Your task to perform on an android device: stop showing notifications on the lock screen Image 0: 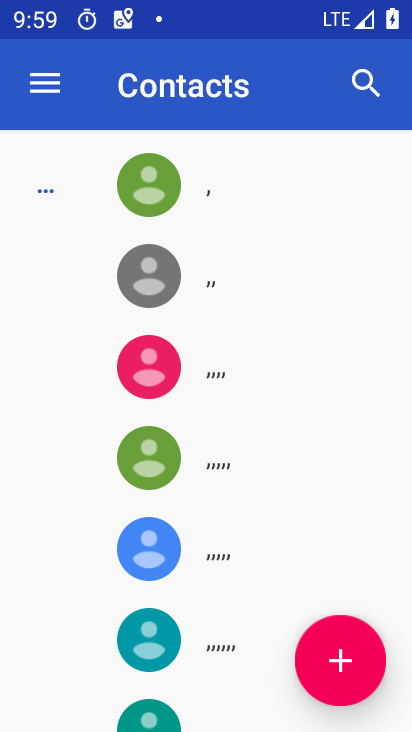
Step 0: press back button
Your task to perform on an android device: stop showing notifications on the lock screen Image 1: 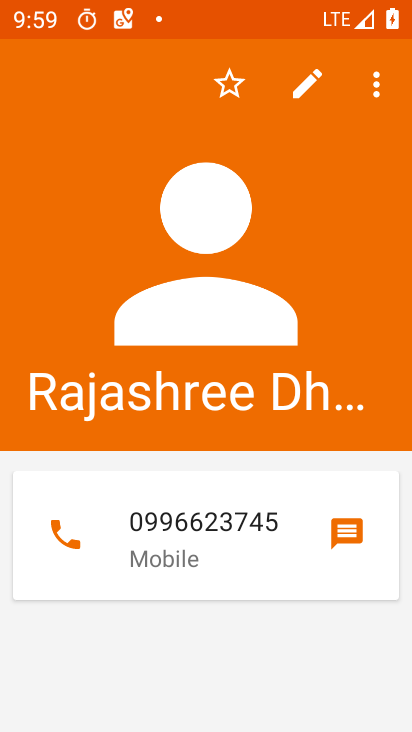
Step 1: press back button
Your task to perform on an android device: stop showing notifications on the lock screen Image 2: 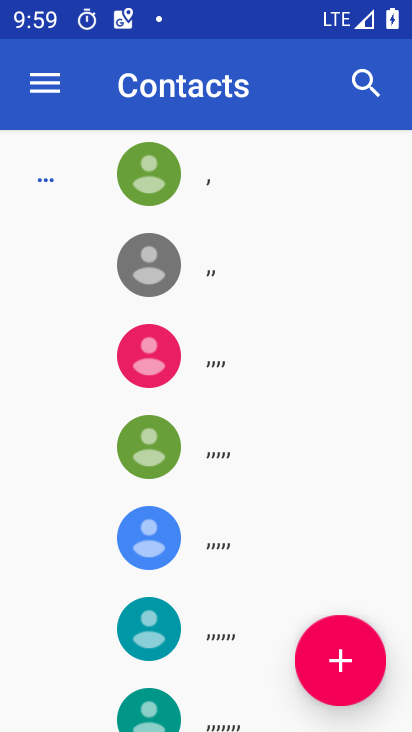
Step 2: press back button
Your task to perform on an android device: stop showing notifications on the lock screen Image 3: 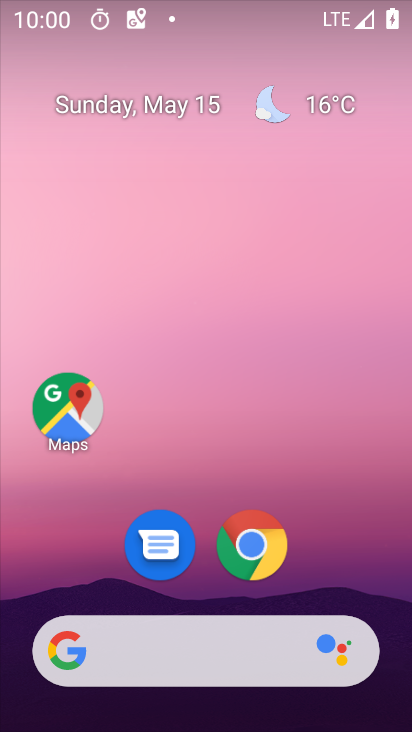
Step 3: drag from (344, 585) to (266, 36)
Your task to perform on an android device: stop showing notifications on the lock screen Image 4: 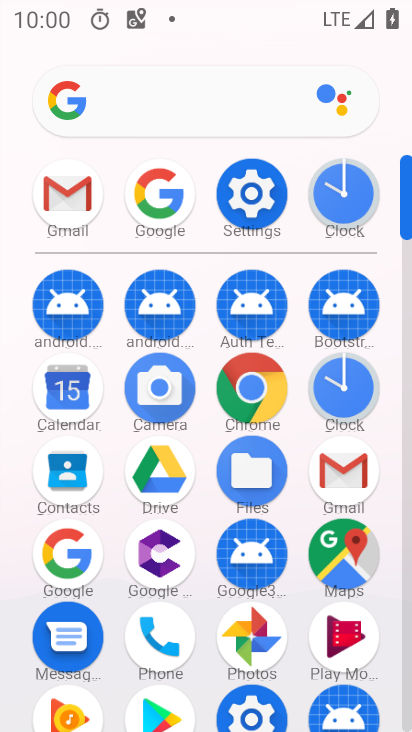
Step 4: click (250, 194)
Your task to perform on an android device: stop showing notifications on the lock screen Image 5: 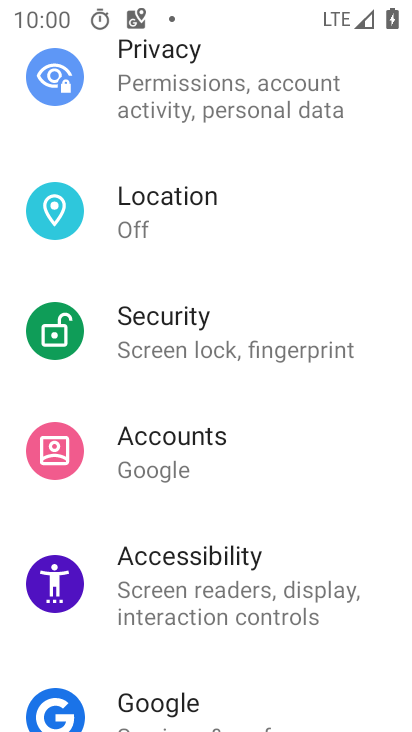
Step 5: drag from (275, 245) to (274, 335)
Your task to perform on an android device: stop showing notifications on the lock screen Image 6: 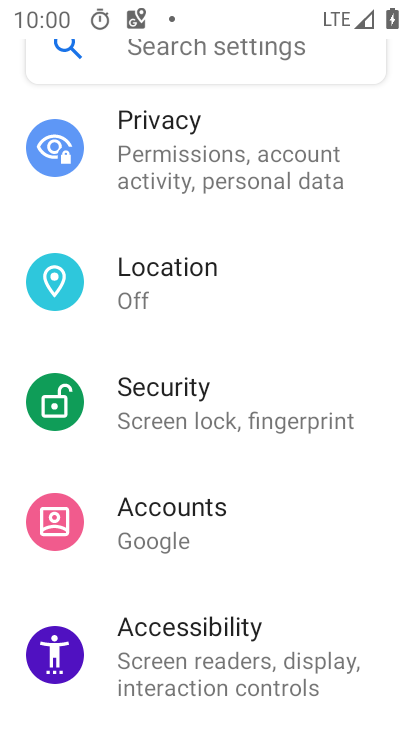
Step 6: drag from (258, 238) to (260, 366)
Your task to perform on an android device: stop showing notifications on the lock screen Image 7: 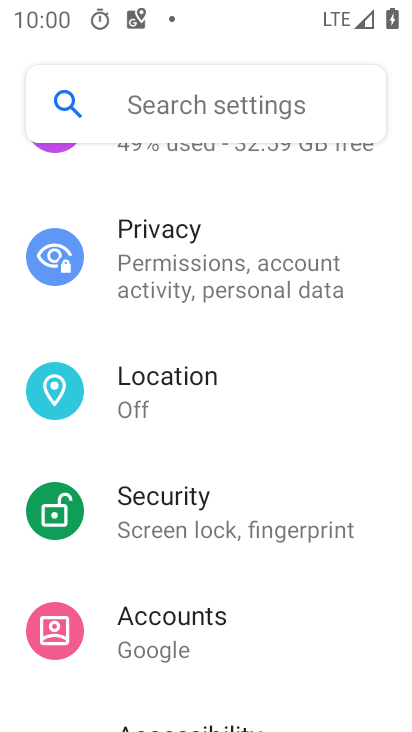
Step 7: drag from (258, 229) to (289, 348)
Your task to perform on an android device: stop showing notifications on the lock screen Image 8: 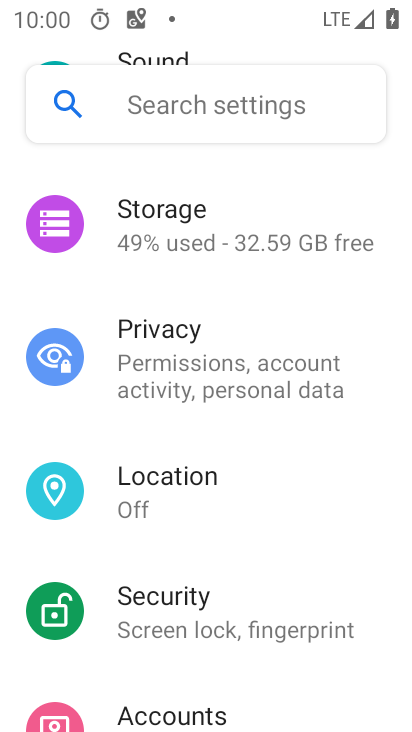
Step 8: drag from (263, 291) to (266, 396)
Your task to perform on an android device: stop showing notifications on the lock screen Image 9: 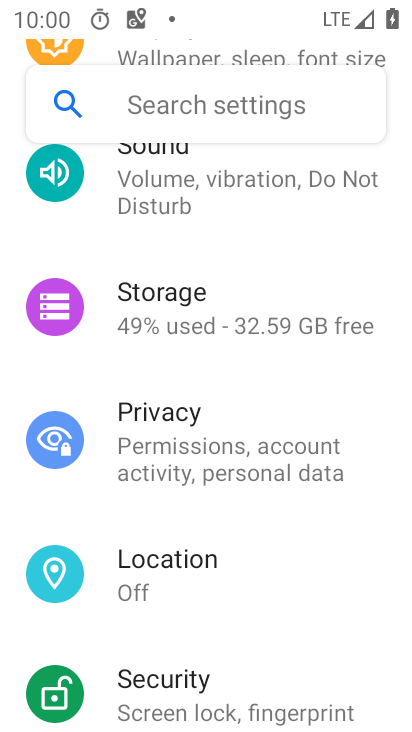
Step 9: drag from (265, 251) to (296, 368)
Your task to perform on an android device: stop showing notifications on the lock screen Image 10: 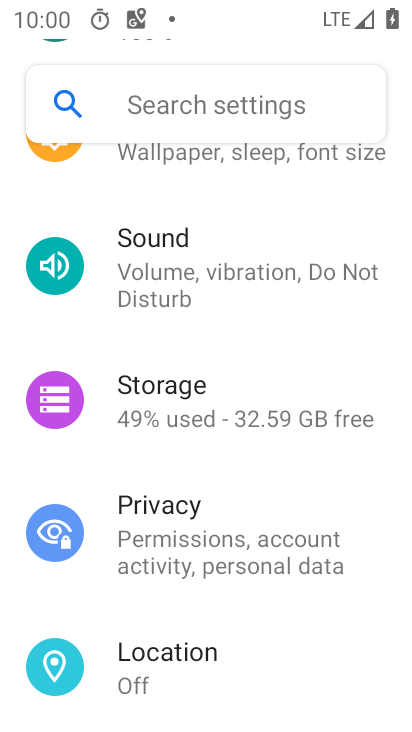
Step 10: drag from (268, 218) to (287, 324)
Your task to perform on an android device: stop showing notifications on the lock screen Image 11: 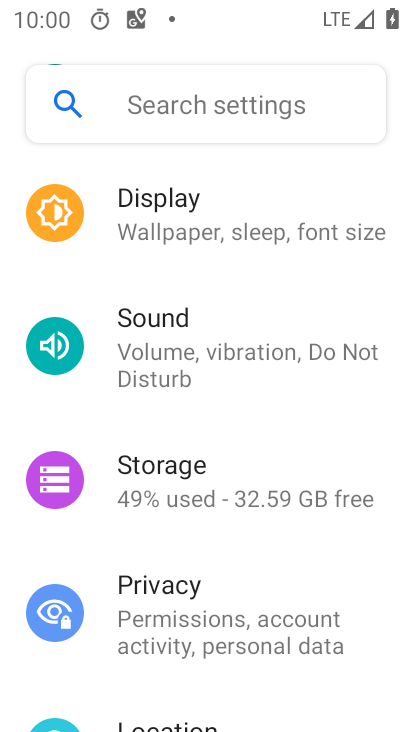
Step 11: drag from (255, 297) to (252, 375)
Your task to perform on an android device: stop showing notifications on the lock screen Image 12: 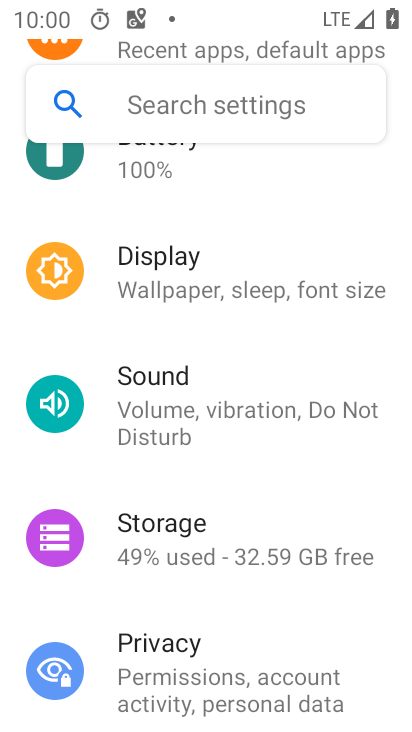
Step 12: drag from (262, 239) to (281, 333)
Your task to perform on an android device: stop showing notifications on the lock screen Image 13: 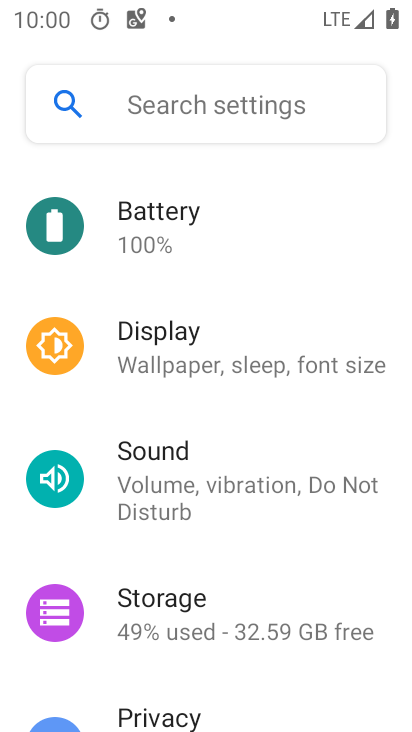
Step 13: drag from (250, 230) to (265, 340)
Your task to perform on an android device: stop showing notifications on the lock screen Image 14: 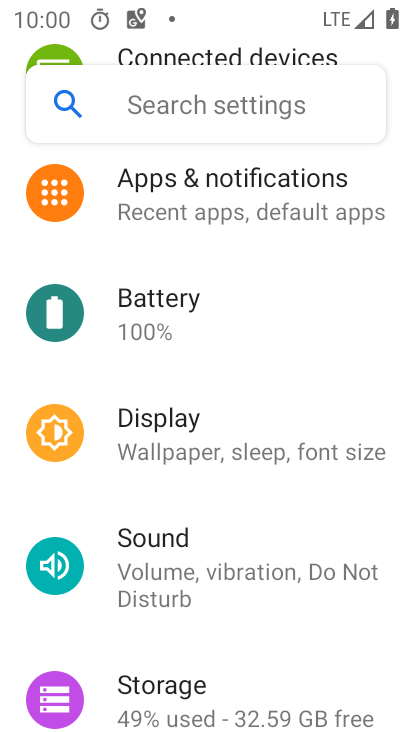
Step 14: drag from (259, 282) to (245, 372)
Your task to perform on an android device: stop showing notifications on the lock screen Image 15: 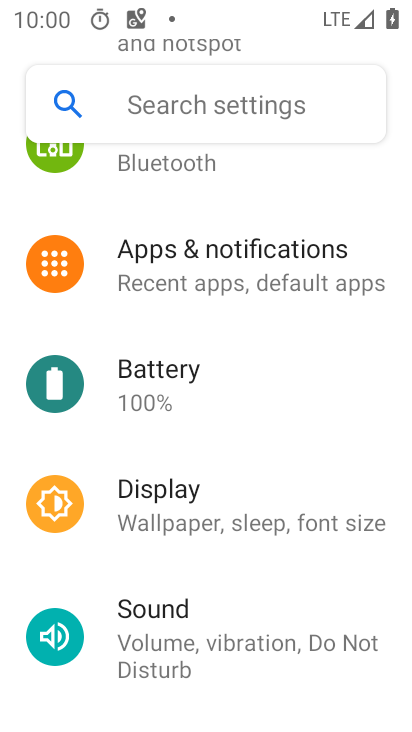
Step 15: click (237, 252)
Your task to perform on an android device: stop showing notifications on the lock screen Image 16: 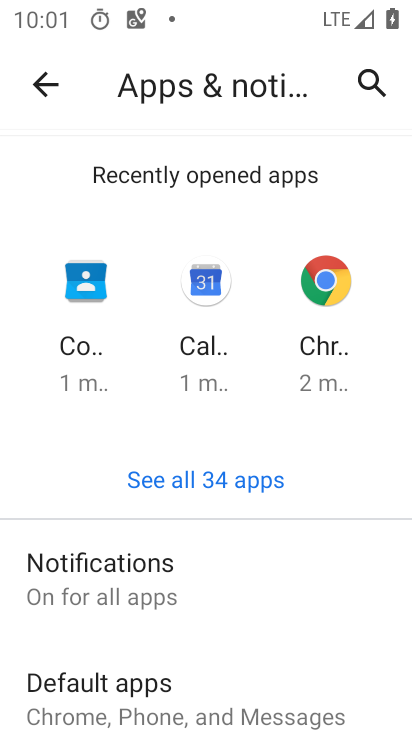
Step 16: click (88, 564)
Your task to perform on an android device: stop showing notifications on the lock screen Image 17: 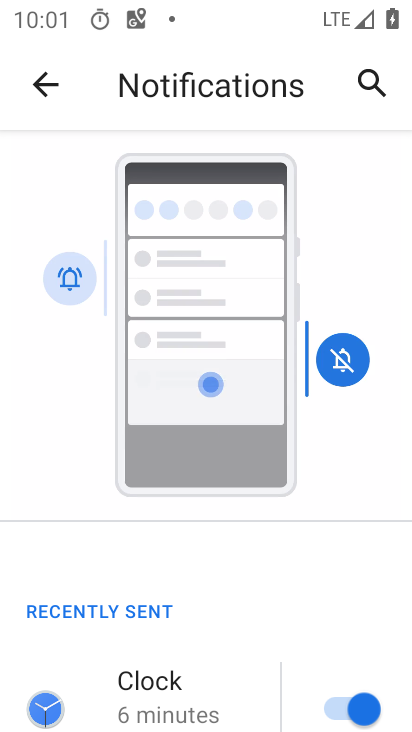
Step 17: drag from (225, 592) to (289, 323)
Your task to perform on an android device: stop showing notifications on the lock screen Image 18: 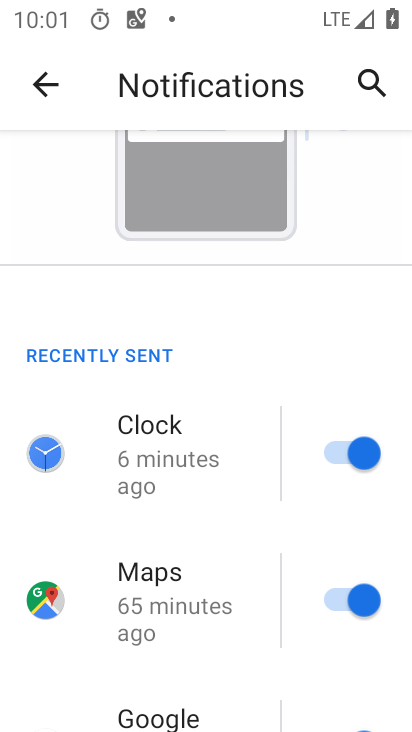
Step 18: drag from (165, 660) to (253, 495)
Your task to perform on an android device: stop showing notifications on the lock screen Image 19: 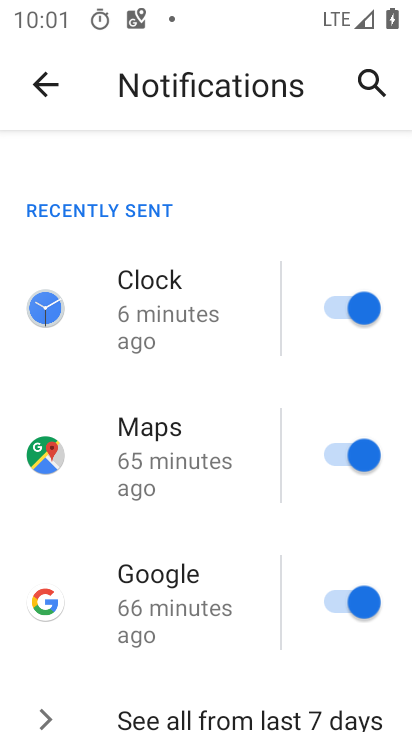
Step 19: drag from (145, 676) to (201, 509)
Your task to perform on an android device: stop showing notifications on the lock screen Image 20: 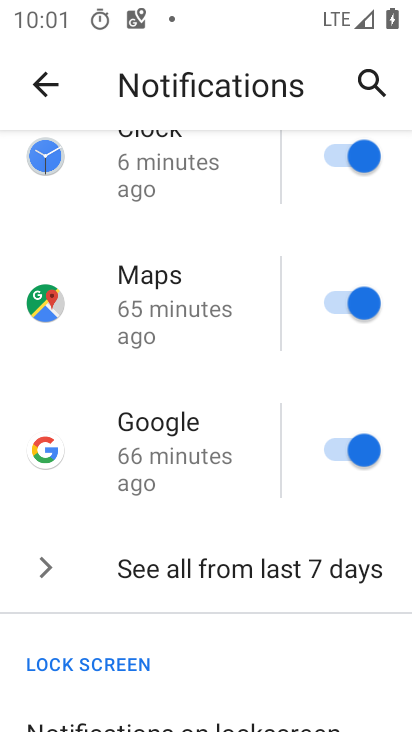
Step 20: drag from (150, 683) to (257, 521)
Your task to perform on an android device: stop showing notifications on the lock screen Image 21: 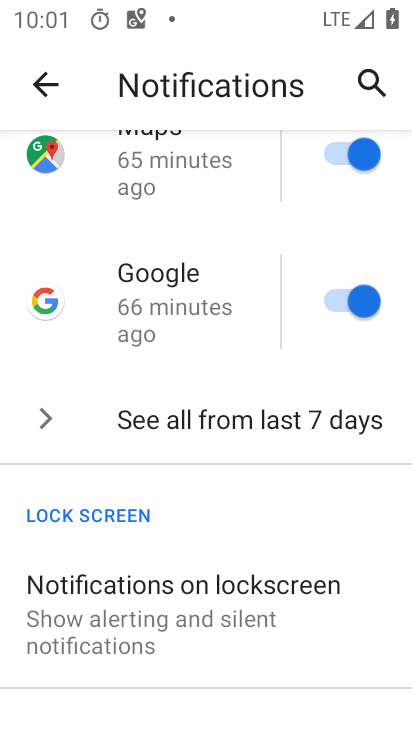
Step 21: click (180, 583)
Your task to perform on an android device: stop showing notifications on the lock screen Image 22: 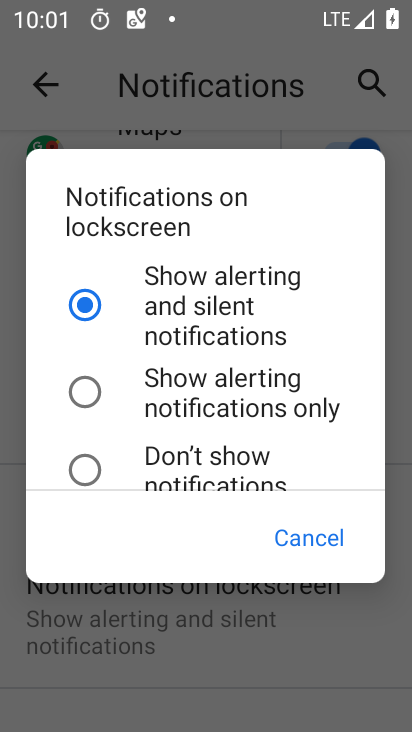
Step 22: click (85, 467)
Your task to perform on an android device: stop showing notifications on the lock screen Image 23: 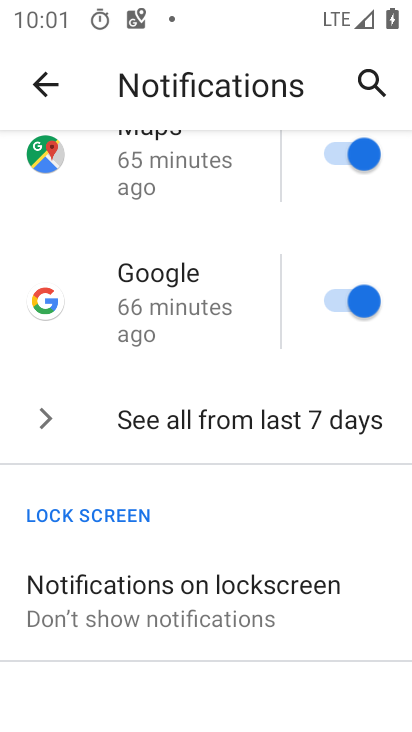
Step 23: task complete